Your task to perform on an android device: check storage Image 0: 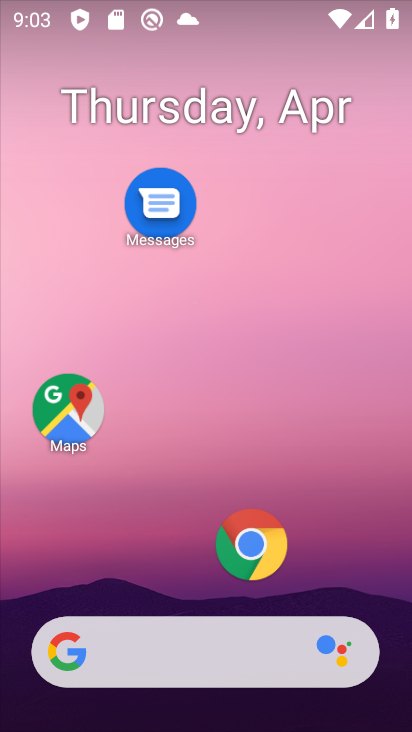
Step 0: drag from (163, 495) to (191, 211)
Your task to perform on an android device: check storage Image 1: 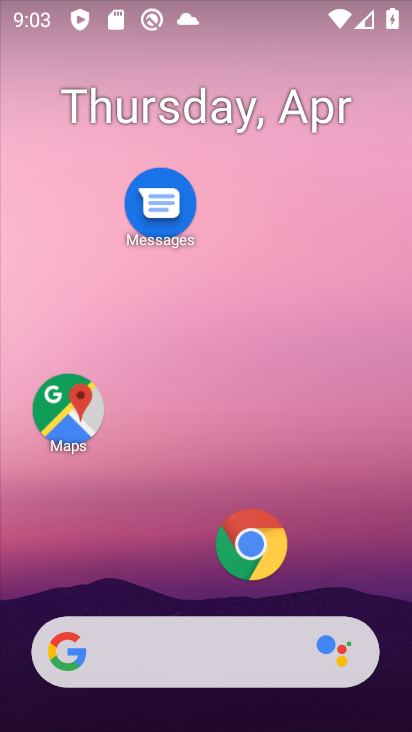
Step 1: drag from (183, 513) to (244, 76)
Your task to perform on an android device: check storage Image 2: 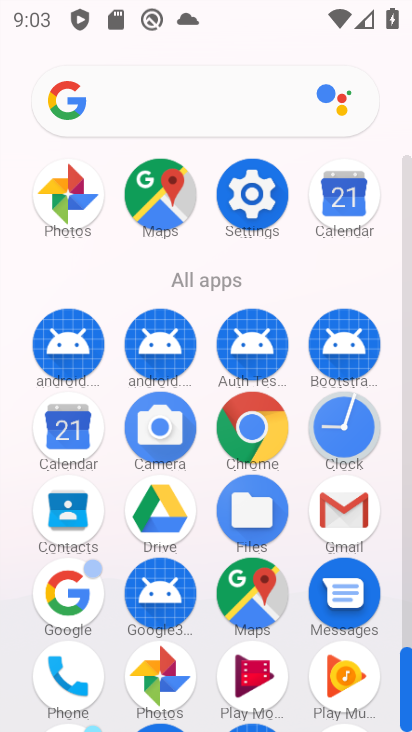
Step 2: click (259, 188)
Your task to perform on an android device: check storage Image 3: 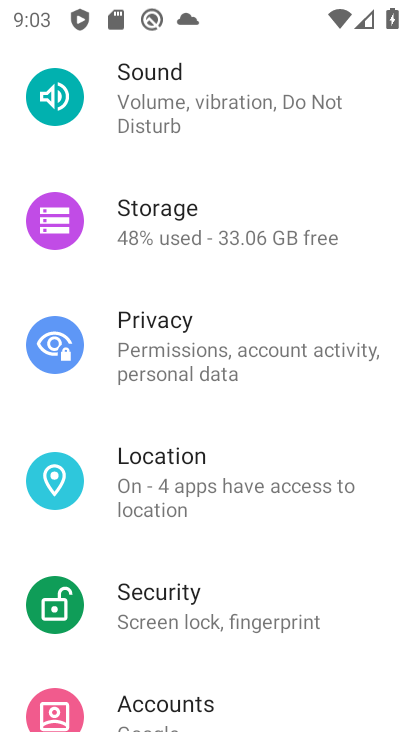
Step 3: click (176, 217)
Your task to perform on an android device: check storage Image 4: 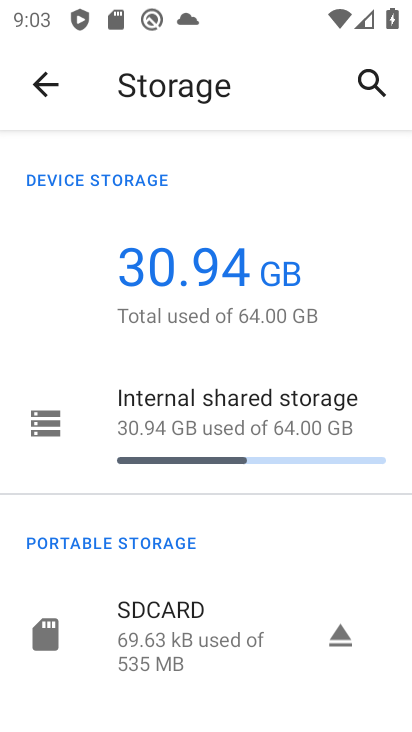
Step 4: task complete